Your task to perform on an android device: Toggle the flashlight Image 0: 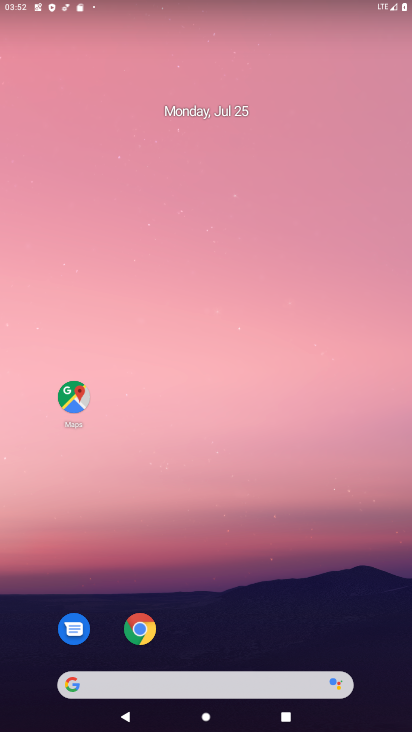
Step 0: drag from (168, 6) to (169, 654)
Your task to perform on an android device: Toggle the flashlight Image 1: 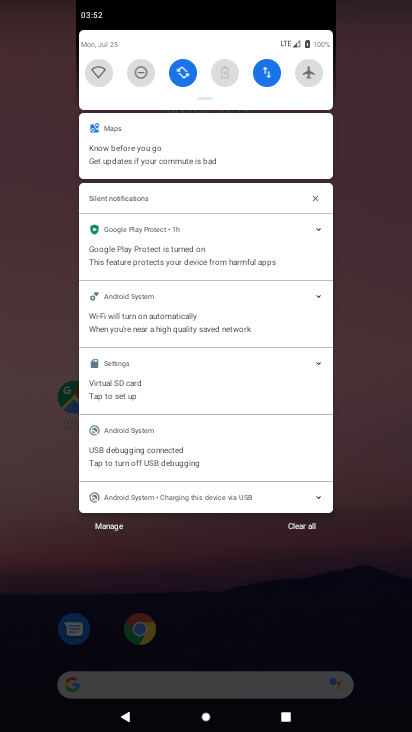
Step 1: task complete